Your task to perform on an android device: check out phone information Image 0: 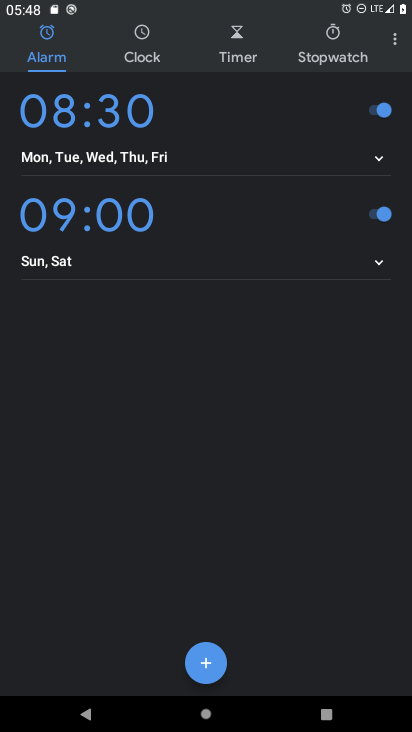
Step 0: press home button
Your task to perform on an android device: check out phone information Image 1: 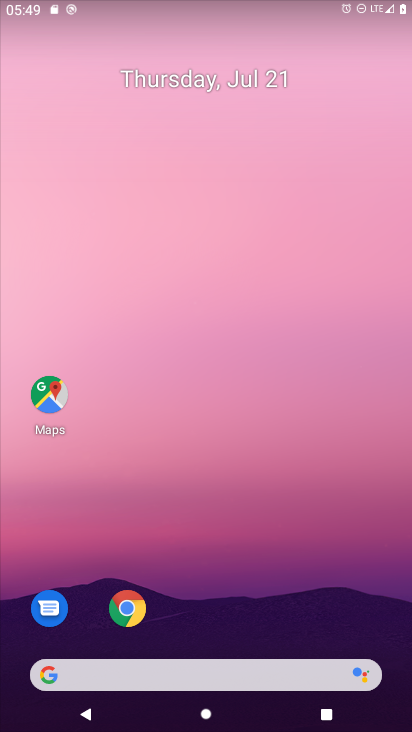
Step 1: drag from (138, 641) to (384, 14)
Your task to perform on an android device: check out phone information Image 2: 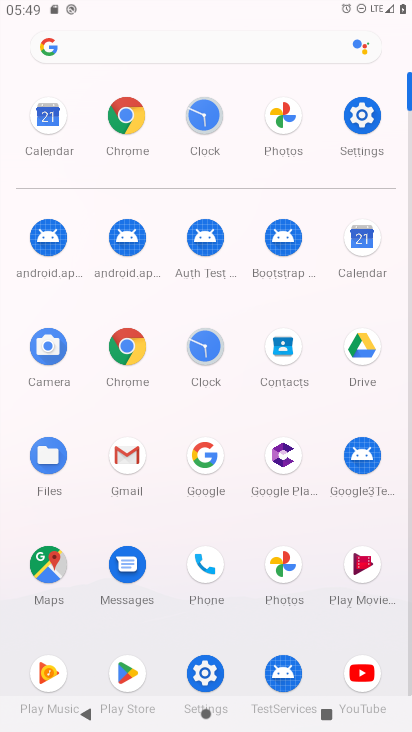
Step 2: click (358, 106)
Your task to perform on an android device: check out phone information Image 3: 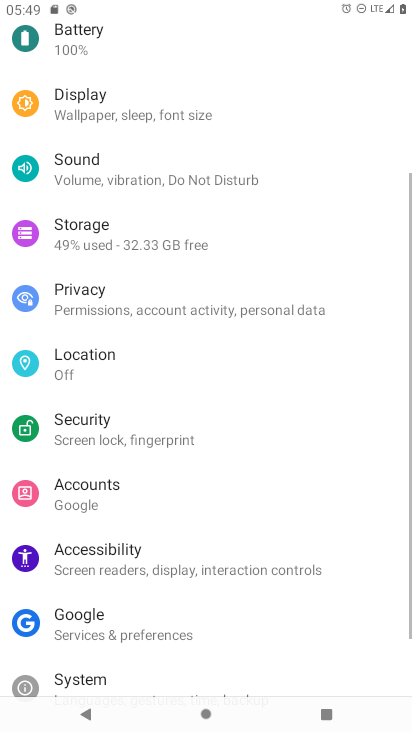
Step 3: drag from (177, 648) to (241, 196)
Your task to perform on an android device: check out phone information Image 4: 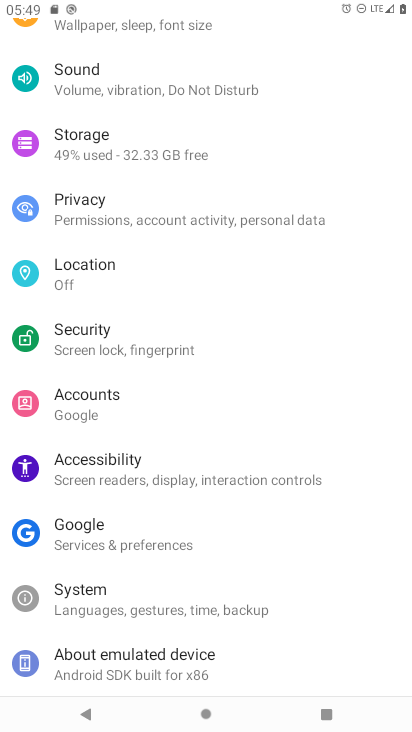
Step 4: click (187, 661)
Your task to perform on an android device: check out phone information Image 5: 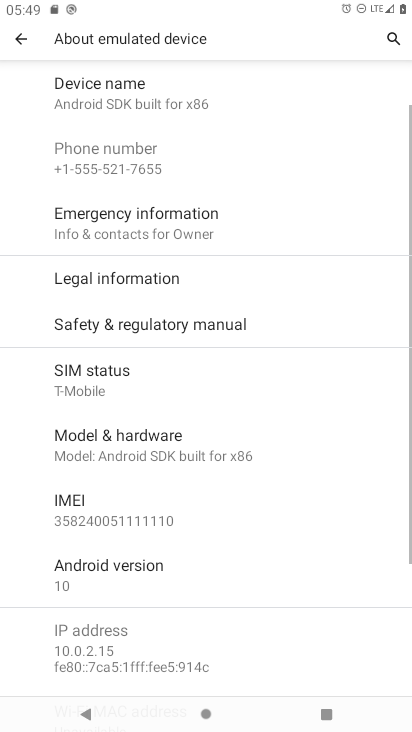
Step 5: task complete